Your task to perform on an android device: Go to notification settings Image 0: 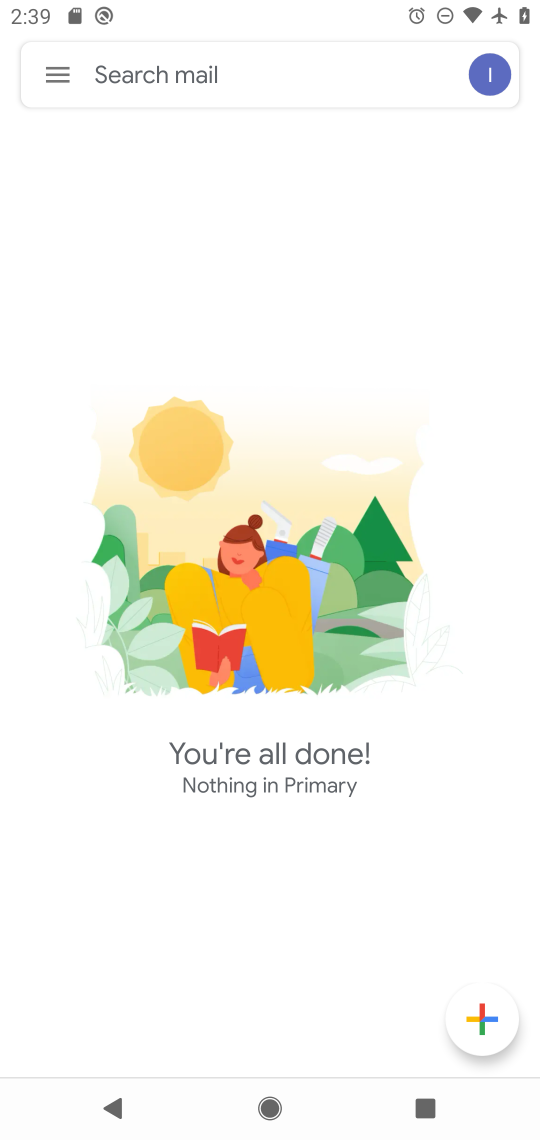
Step 0: click (60, 81)
Your task to perform on an android device: Go to notification settings Image 1: 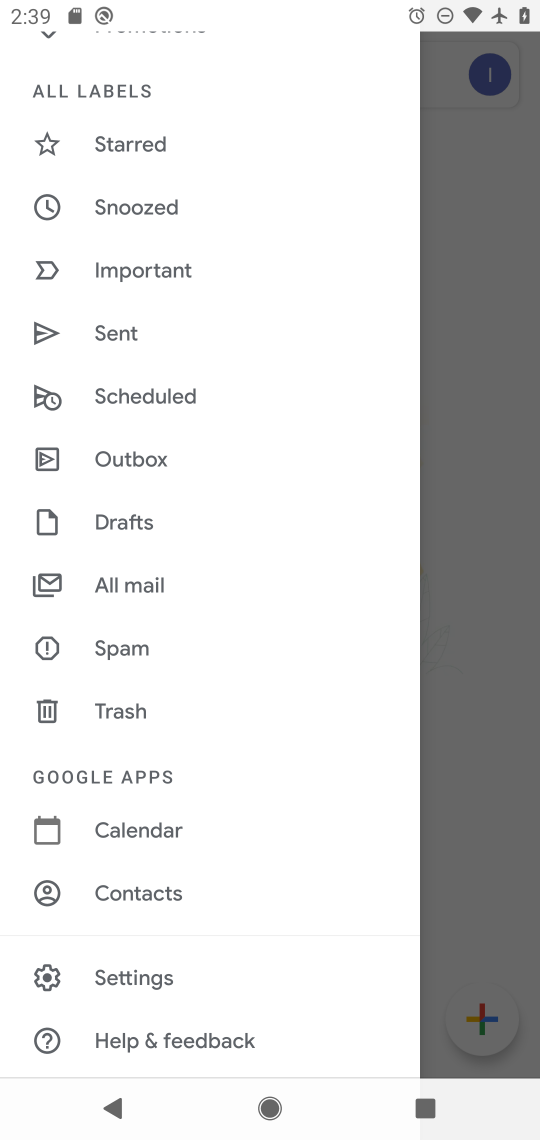
Step 1: click (148, 971)
Your task to perform on an android device: Go to notification settings Image 2: 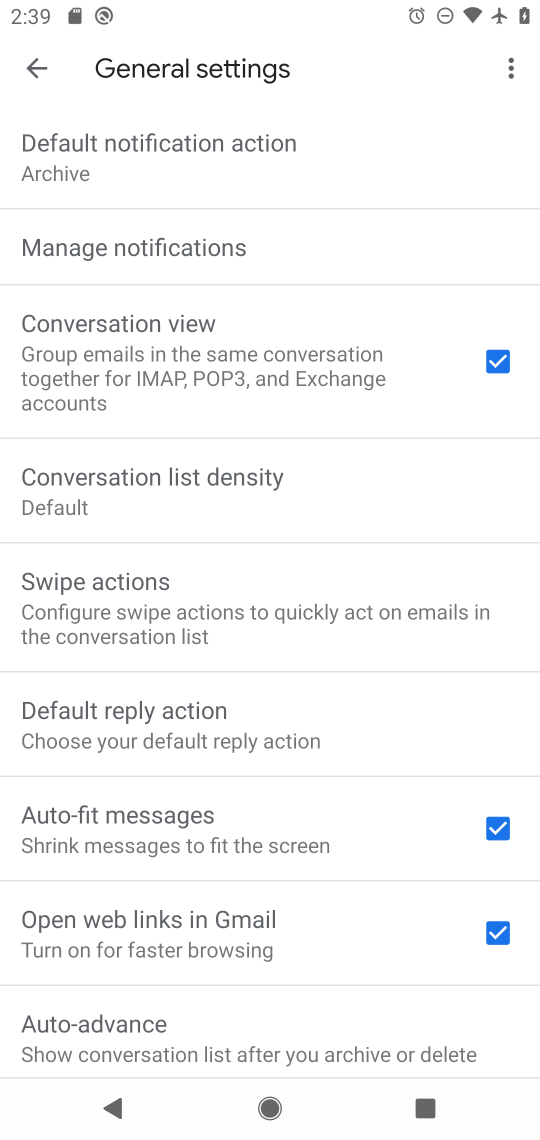
Step 2: press home button
Your task to perform on an android device: Go to notification settings Image 3: 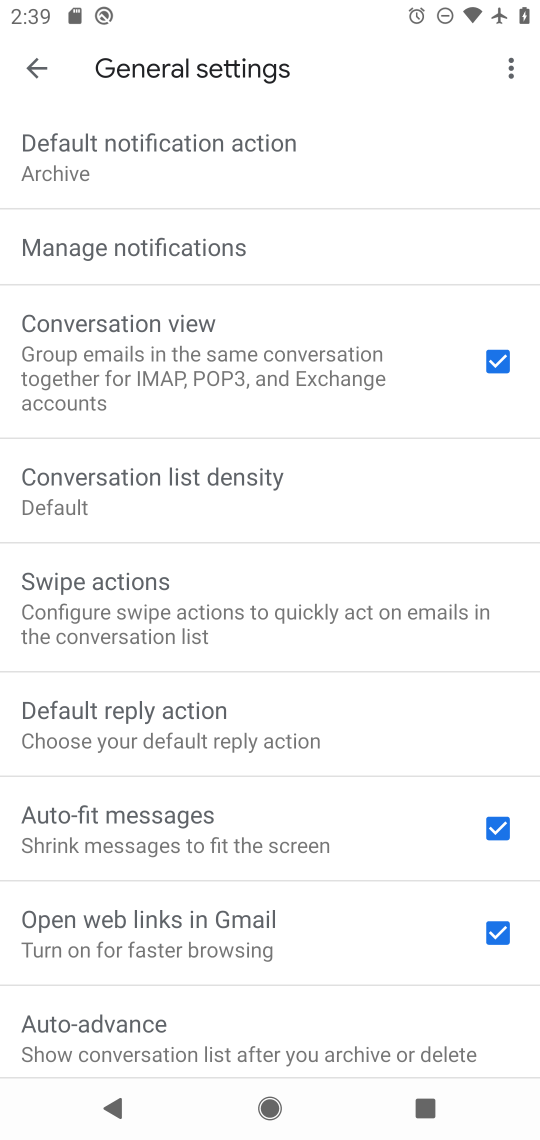
Step 3: press home button
Your task to perform on an android device: Go to notification settings Image 4: 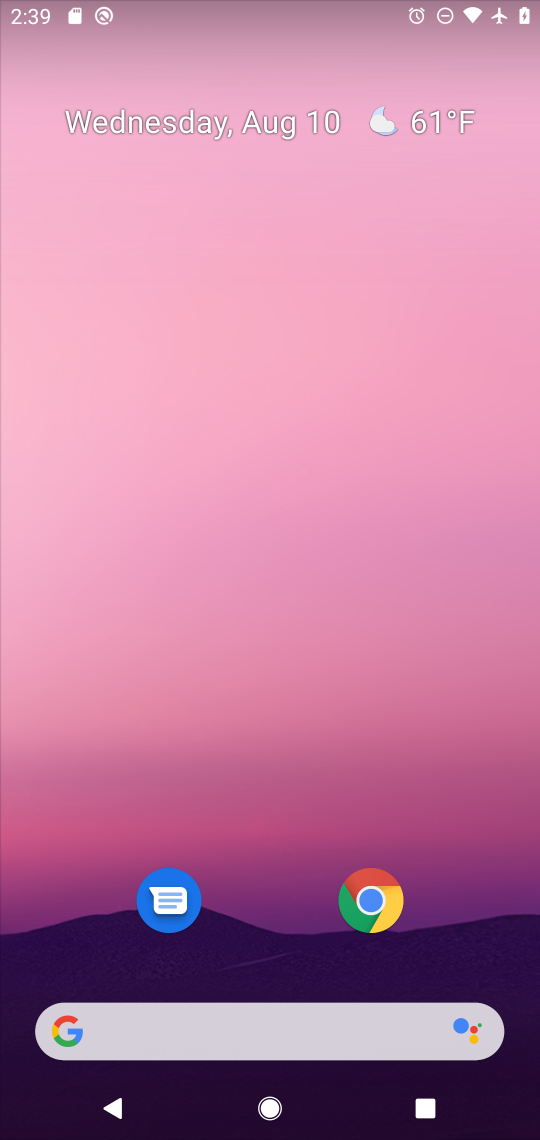
Step 4: drag from (263, 885) to (340, 0)
Your task to perform on an android device: Go to notification settings Image 5: 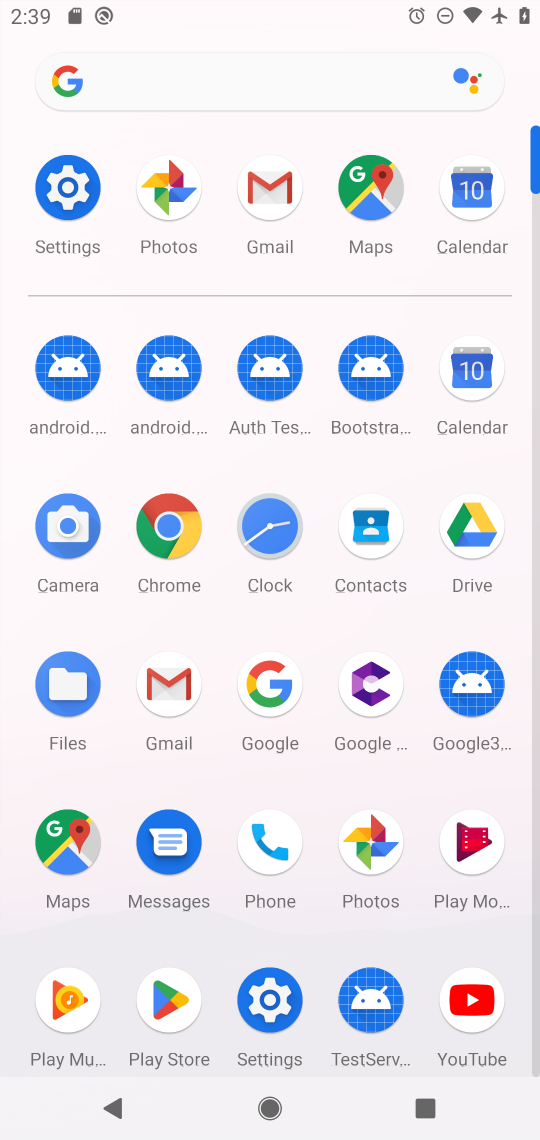
Step 5: click (66, 189)
Your task to perform on an android device: Go to notification settings Image 6: 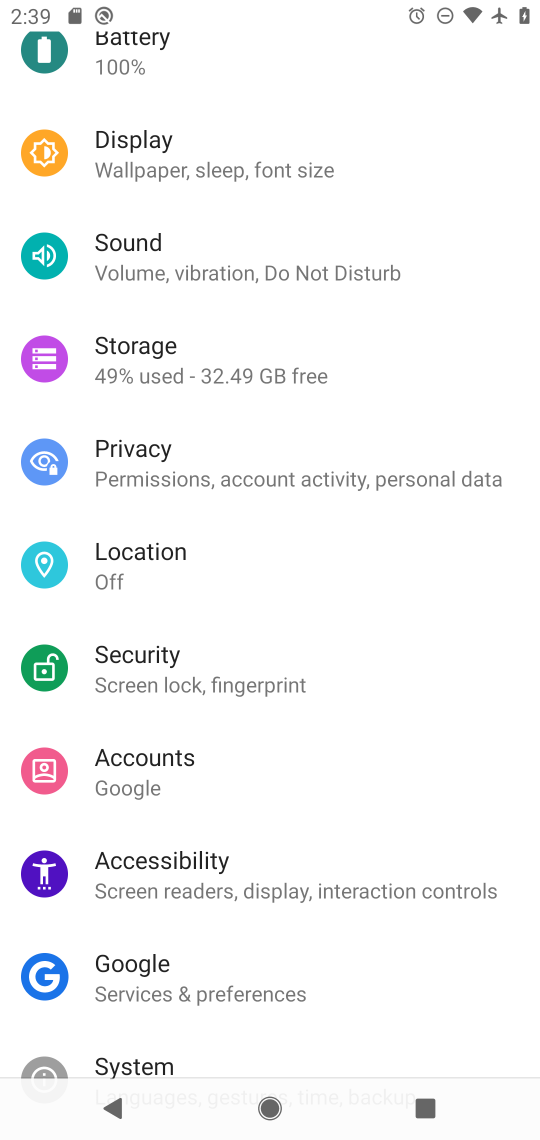
Step 6: drag from (300, 497) to (345, 994)
Your task to perform on an android device: Go to notification settings Image 7: 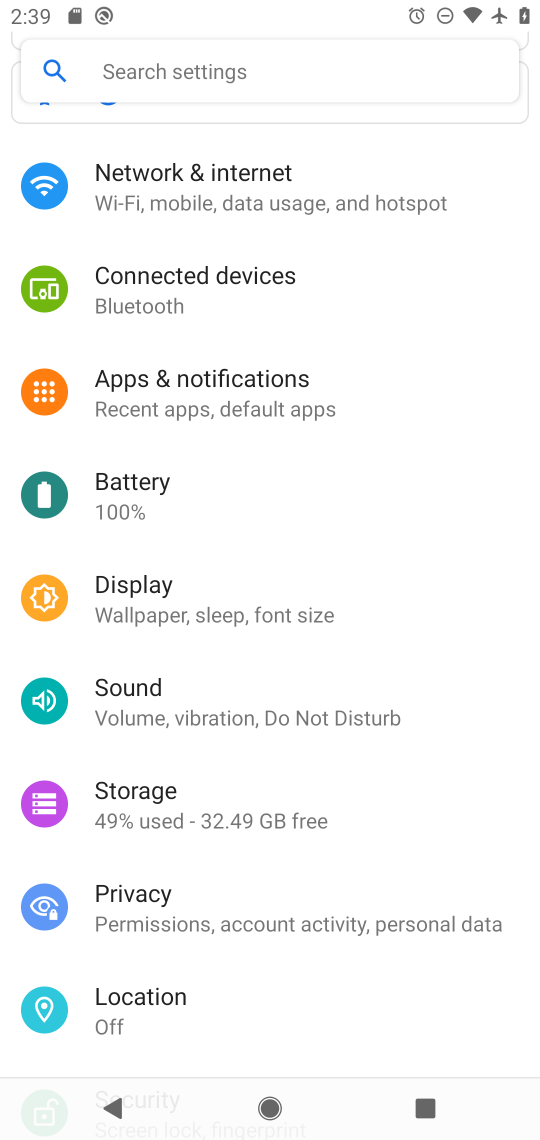
Step 7: click (289, 401)
Your task to perform on an android device: Go to notification settings Image 8: 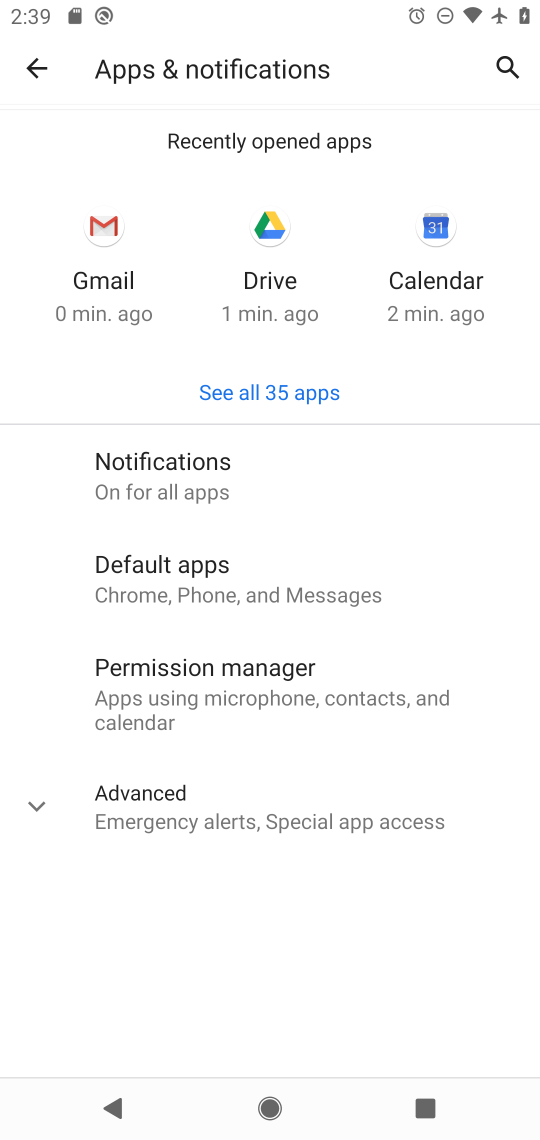
Step 8: click (164, 497)
Your task to perform on an android device: Go to notification settings Image 9: 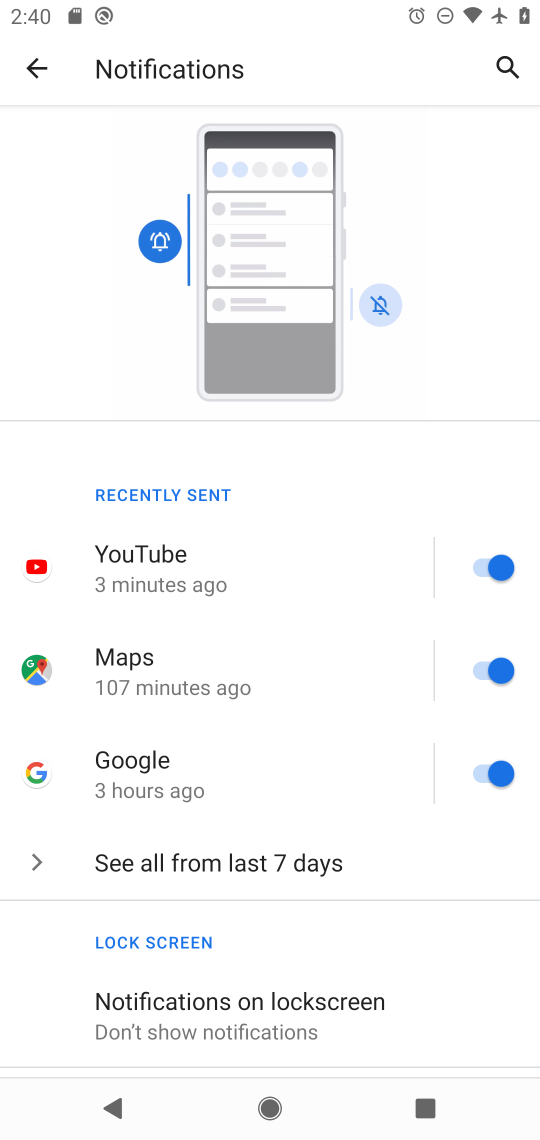
Step 9: task complete